Your task to perform on an android device: Open accessibility settings Image 0: 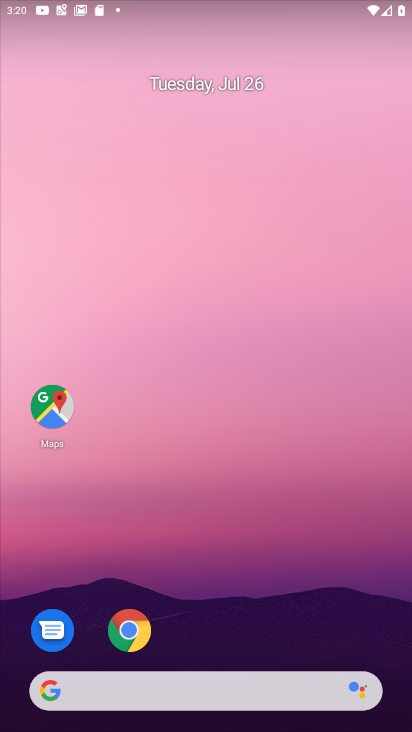
Step 0: drag from (201, 617) to (237, 54)
Your task to perform on an android device: Open accessibility settings Image 1: 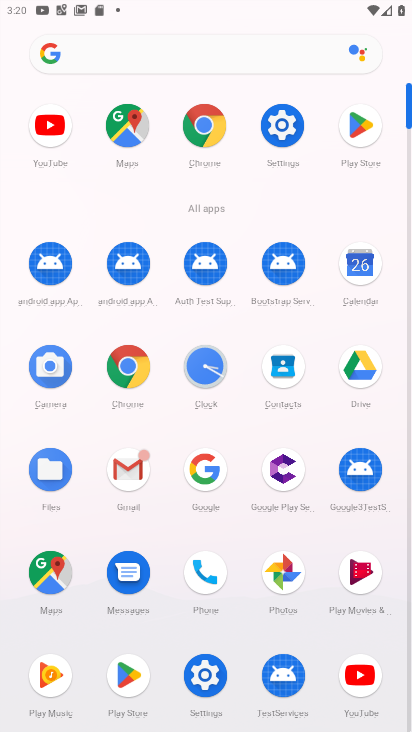
Step 1: click (279, 128)
Your task to perform on an android device: Open accessibility settings Image 2: 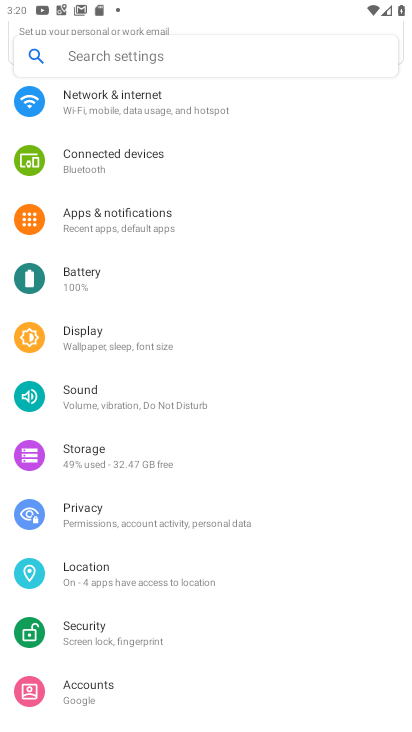
Step 2: drag from (93, 658) to (134, 124)
Your task to perform on an android device: Open accessibility settings Image 3: 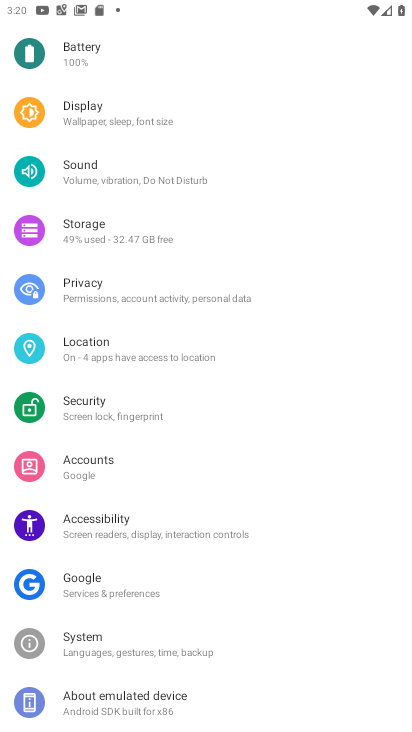
Step 3: click (113, 537)
Your task to perform on an android device: Open accessibility settings Image 4: 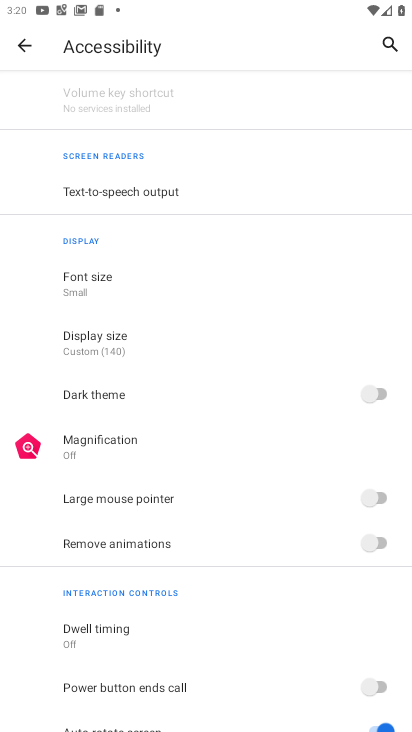
Step 4: task complete